Your task to perform on an android device: Open the map Image 0: 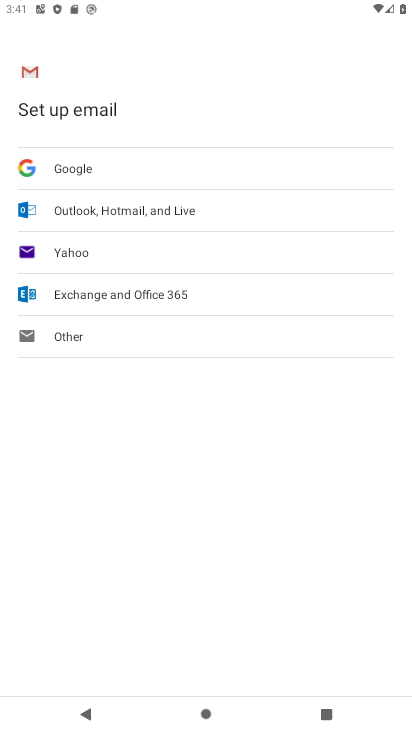
Step 0: press home button
Your task to perform on an android device: Open the map Image 1: 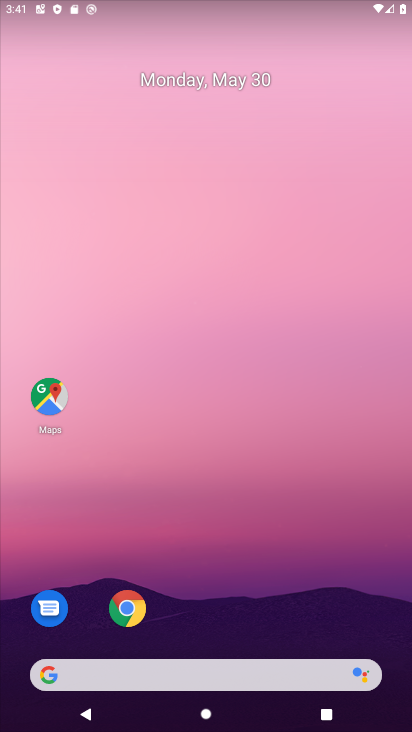
Step 1: click (49, 396)
Your task to perform on an android device: Open the map Image 2: 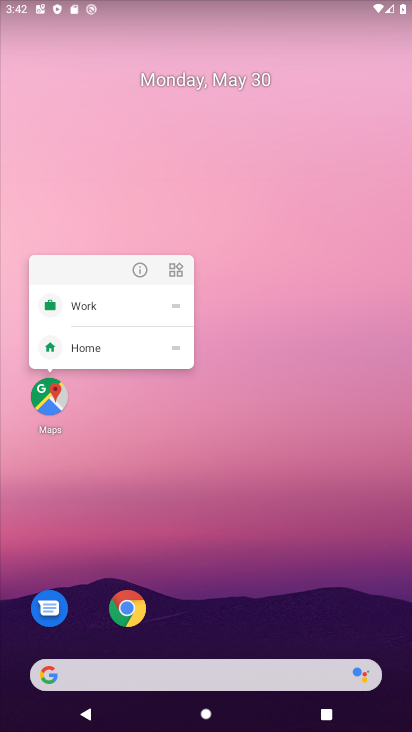
Step 2: click (55, 396)
Your task to perform on an android device: Open the map Image 3: 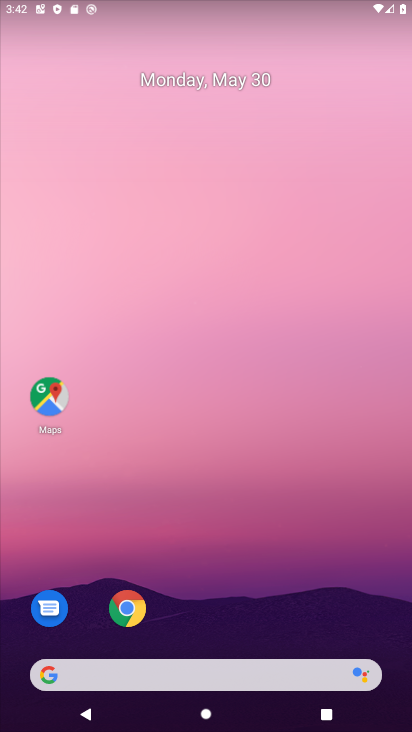
Step 3: click (58, 392)
Your task to perform on an android device: Open the map Image 4: 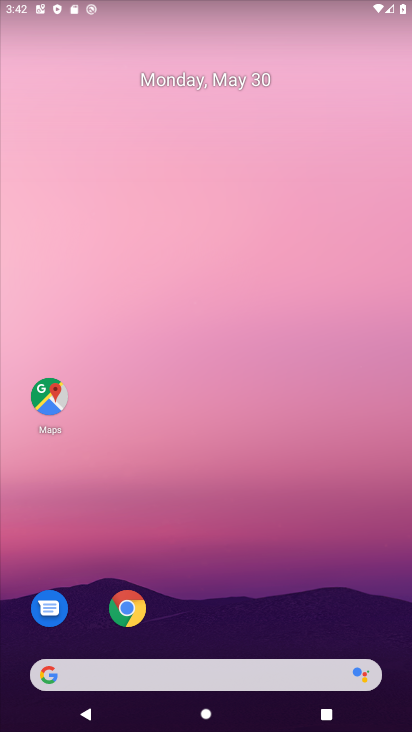
Step 4: click (46, 393)
Your task to perform on an android device: Open the map Image 5: 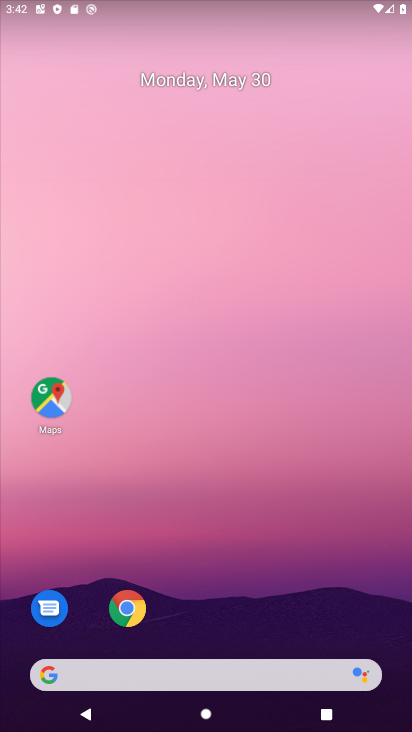
Step 5: click (47, 393)
Your task to perform on an android device: Open the map Image 6: 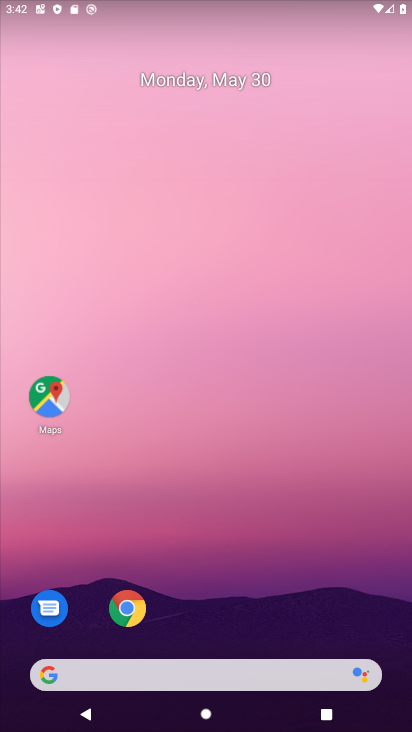
Step 6: click (47, 393)
Your task to perform on an android device: Open the map Image 7: 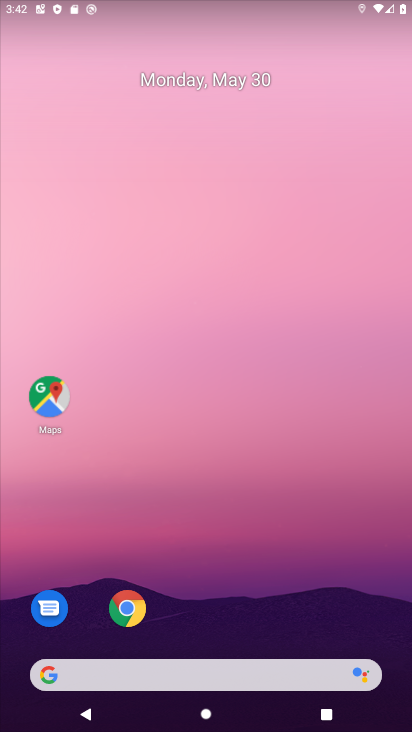
Step 7: click (47, 393)
Your task to perform on an android device: Open the map Image 8: 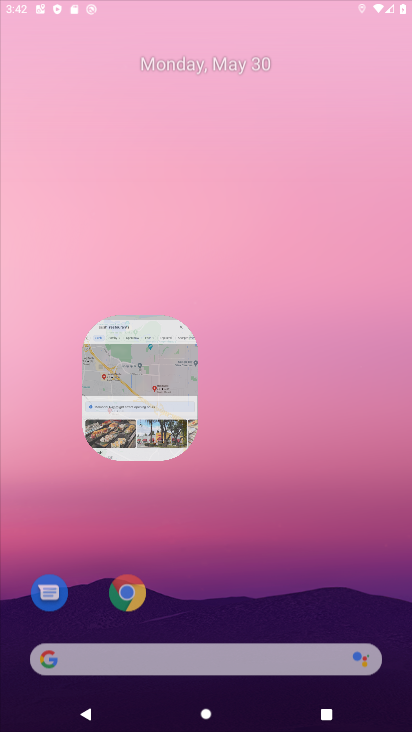
Step 8: click (47, 393)
Your task to perform on an android device: Open the map Image 9: 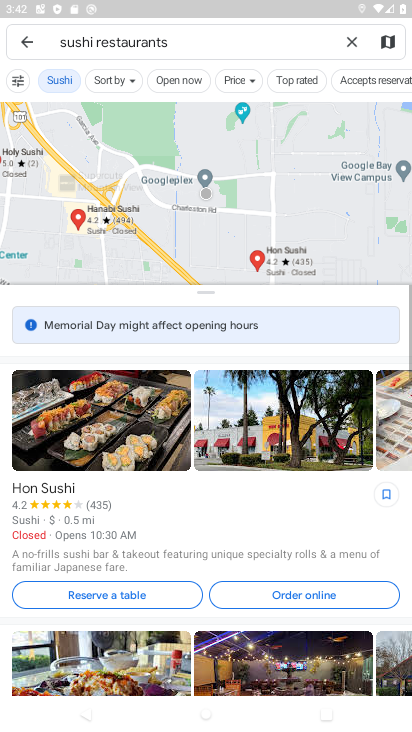
Step 9: click (47, 387)
Your task to perform on an android device: Open the map Image 10: 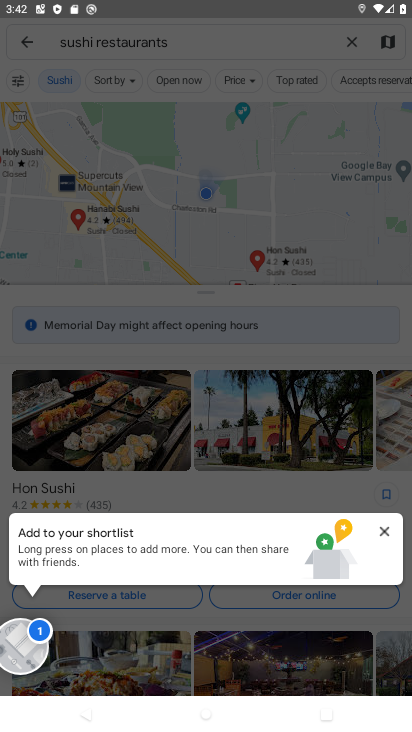
Step 10: task complete